Your task to perform on an android device: Do I have any events tomorrow? Image 0: 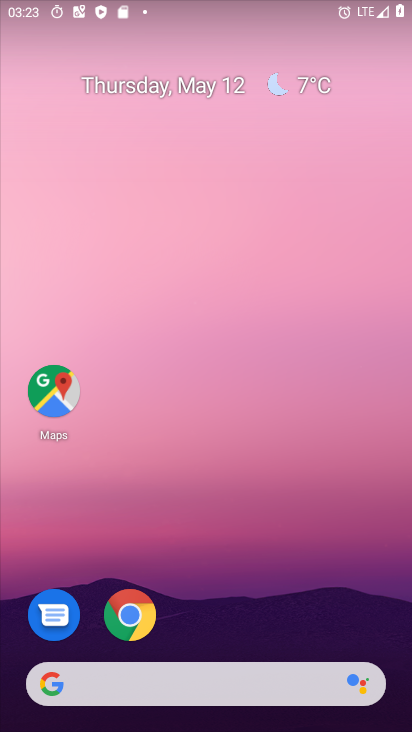
Step 0: drag from (194, 684) to (161, 360)
Your task to perform on an android device: Do I have any events tomorrow? Image 1: 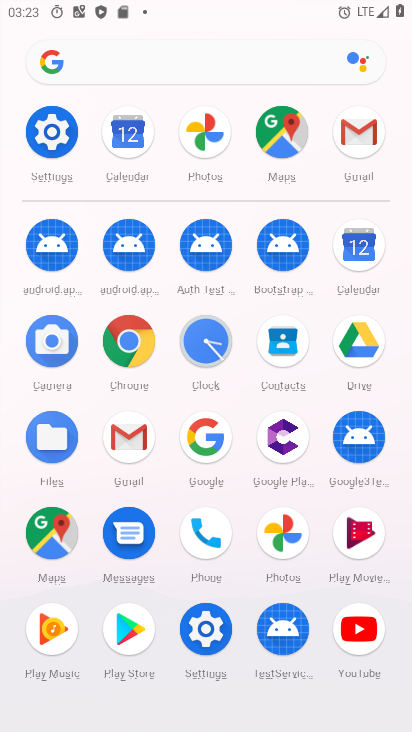
Step 1: click (368, 253)
Your task to perform on an android device: Do I have any events tomorrow? Image 2: 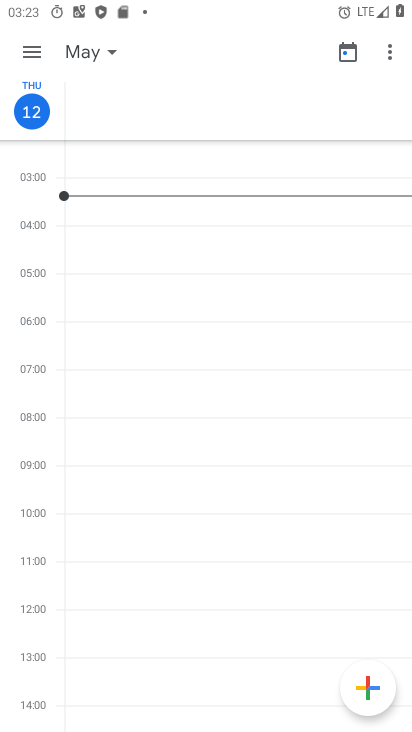
Step 2: click (42, 50)
Your task to perform on an android device: Do I have any events tomorrow? Image 3: 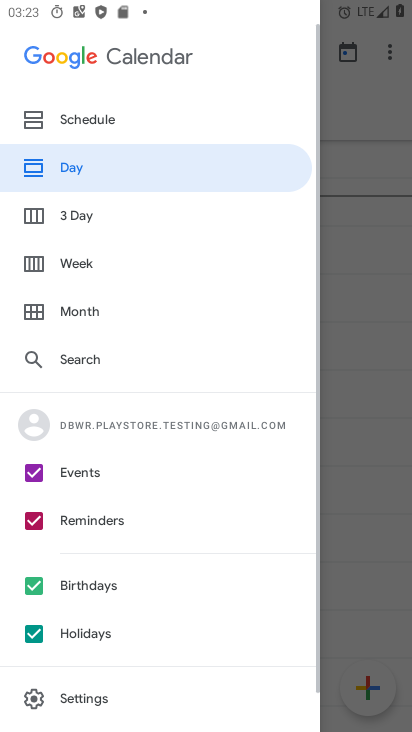
Step 3: click (64, 107)
Your task to perform on an android device: Do I have any events tomorrow? Image 4: 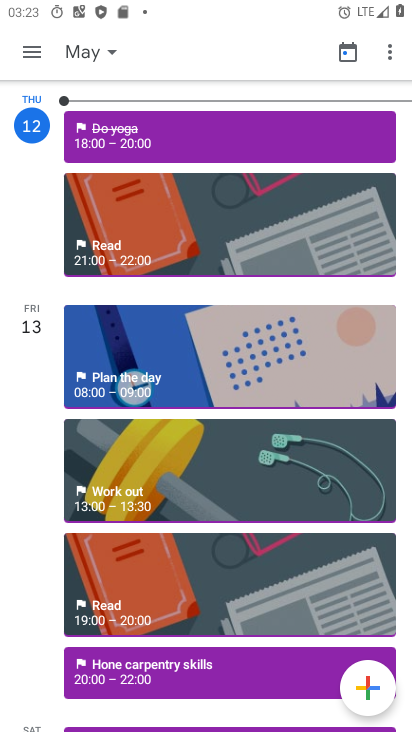
Step 4: task complete